Your task to perform on an android device: Show me recent news Image 0: 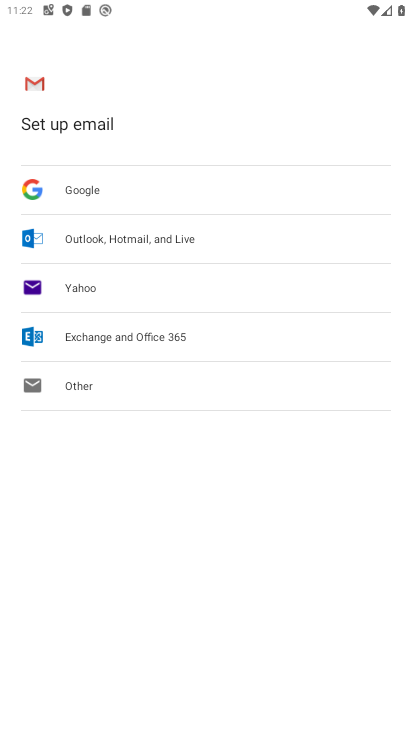
Step 0: press home button
Your task to perform on an android device: Show me recent news Image 1: 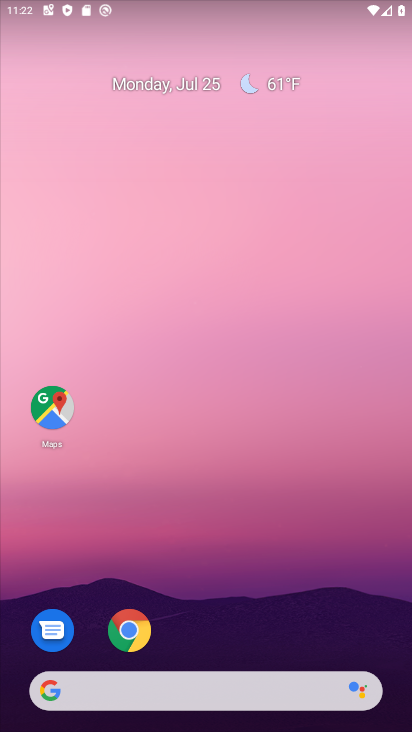
Step 1: click (177, 692)
Your task to perform on an android device: Show me recent news Image 2: 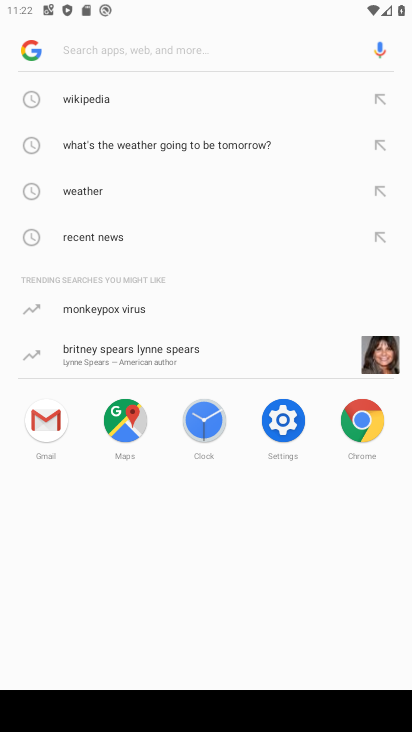
Step 2: type "recenr news"
Your task to perform on an android device: Show me recent news Image 3: 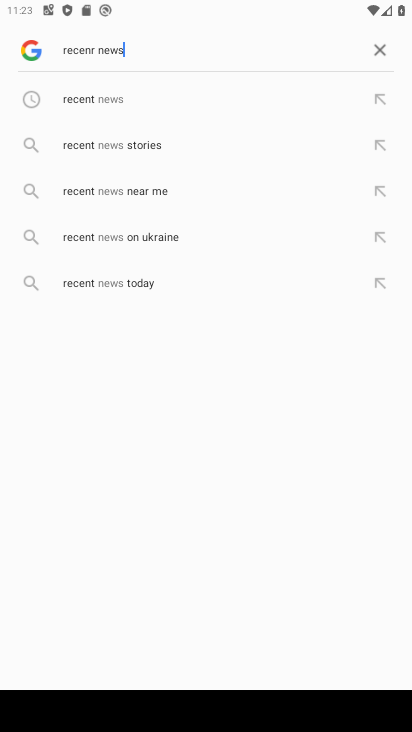
Step 3: click (86, 99)
Your task to perform on an android device: Show me recent news Image 4: 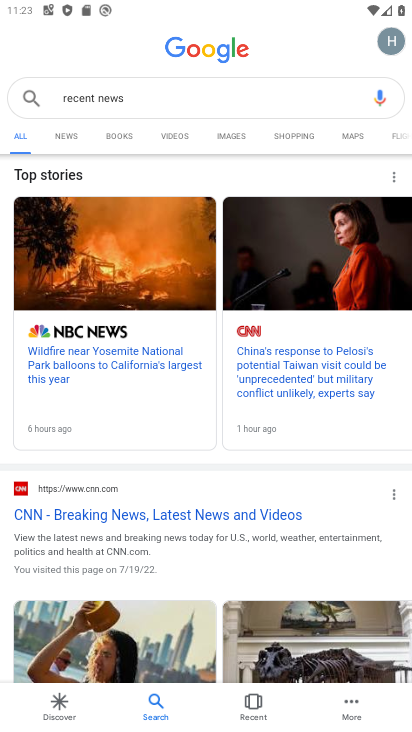
Step 4: click (75, 131)
Your task to perform on an android device: Show me recent news Image 5: 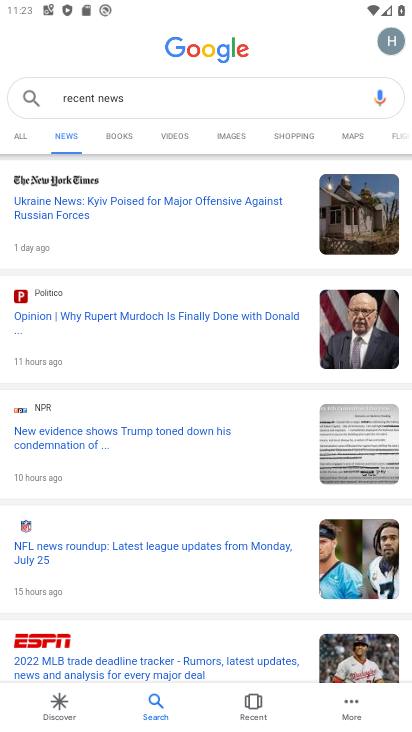
Step 5: task complete